Your task to perform on an android device: Toggle the flashlight Image 0: 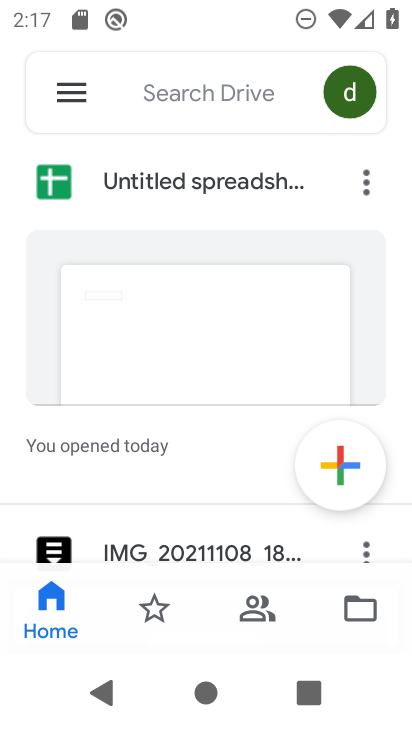
Step 0: press home button
Your task to perform on an android device: Toggle the flashlight Image 1: 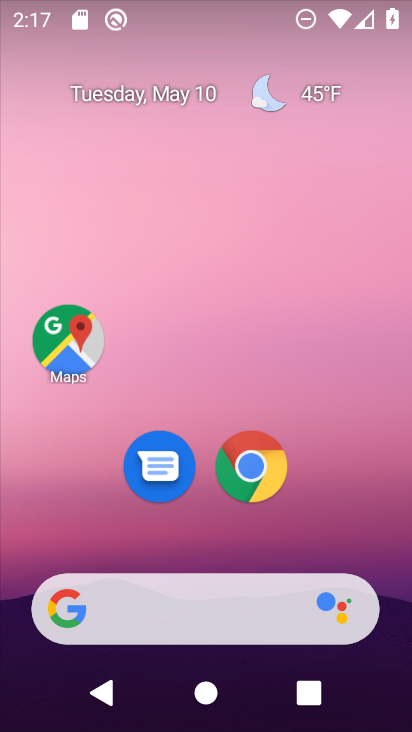
Step 1: drag from (325, 524) to (366, 9)
Your task to perform on an android device: Toggle the flashlight Image 2: 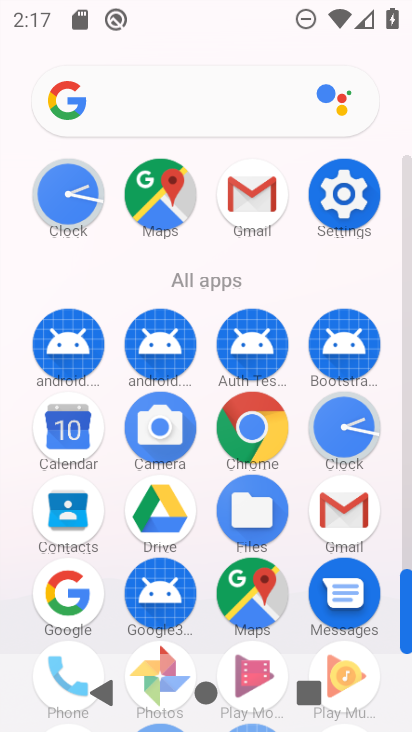
Step 2: click (349, 212)
Your task to perform on an android device: Toggle the flashlight Image 3: 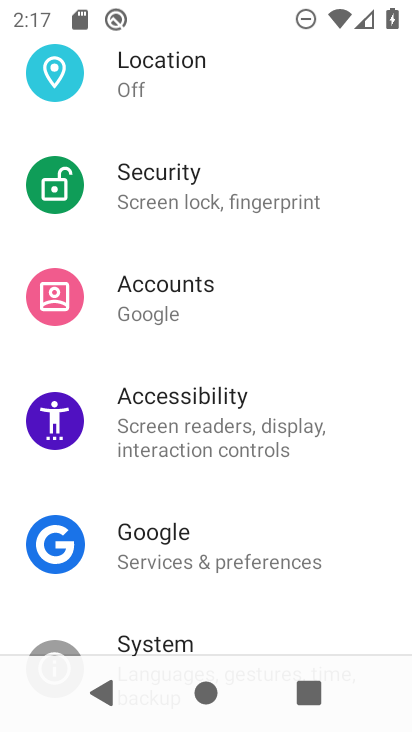
Step 3: task complete